Your task to perform on an android device: turn off notifications in google photos Image 0: 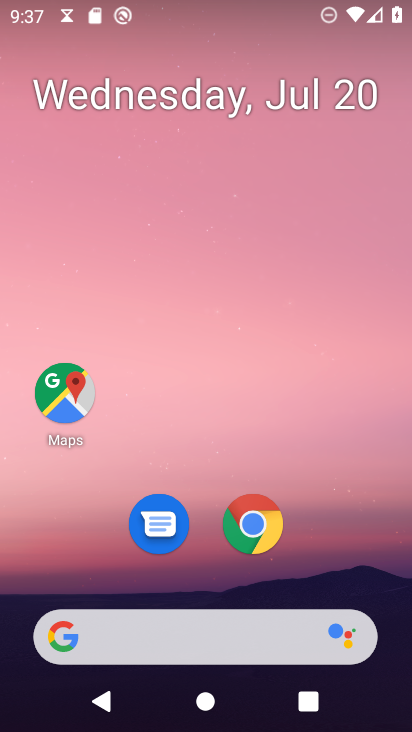
Step 0: press home button
Your task to perform on an android device: turn off notifications in google photos Image 1: 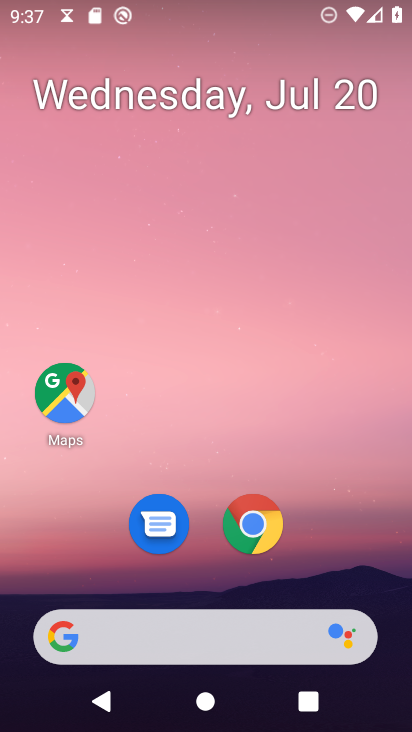
Step 1: drag from (180, 638) to (278, 163)
Your task to perform on an android device: turn off notifications in google photos Image 2: 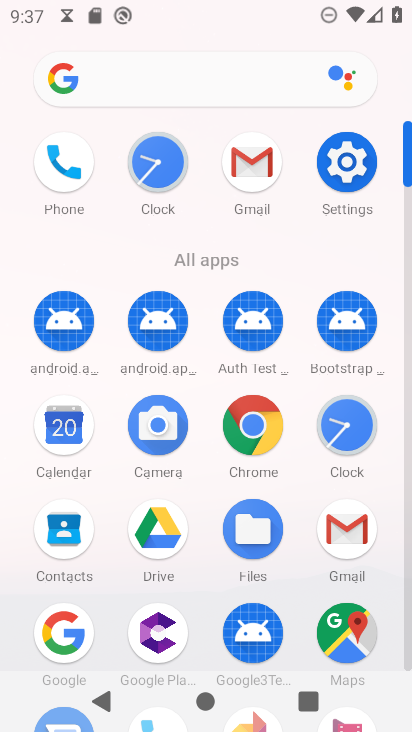
Step 2: drag from (198, 612) to (351, 109)
Your task to perform on an android device: turn off notifications in google photos Image 3: 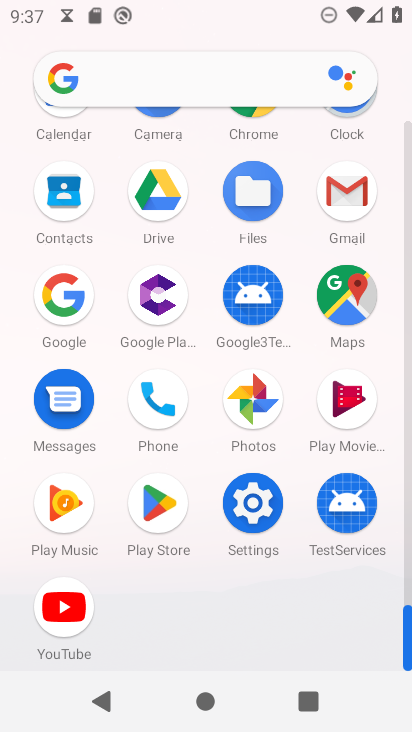
Step 3: click (260, 409)
Your task to perform on an android device: turn off notifications in google photos Image 4: 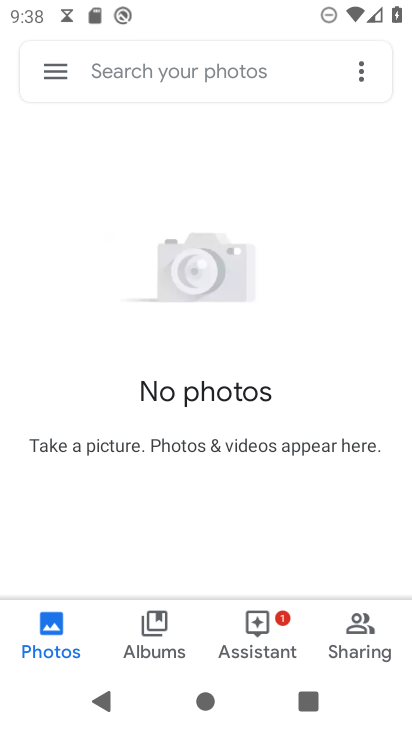
Step 4: click (64, 67)
Your task to perform on an android device: turn off notifications in google photos Image 5: 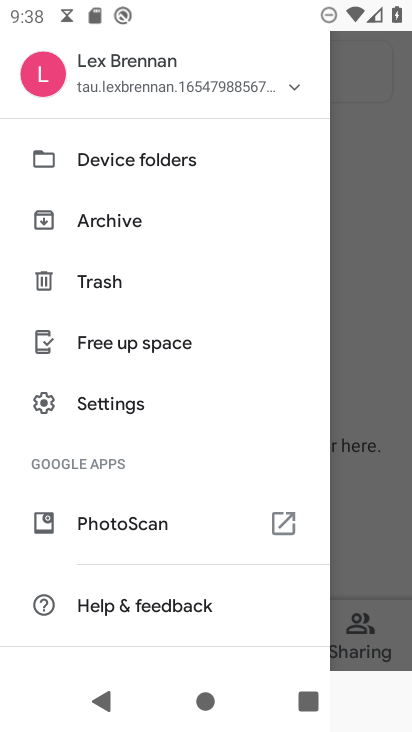
Step 5: click (111, 393)
Your task to perform on an android device: turn off notifications in google photos Image 6: 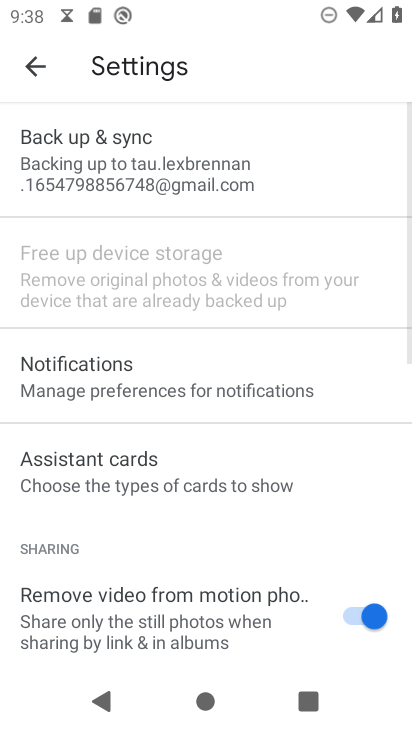
Step 6: click (118, 385)
Your task to perform on an android device: turn off notifications in google photos Image 7: 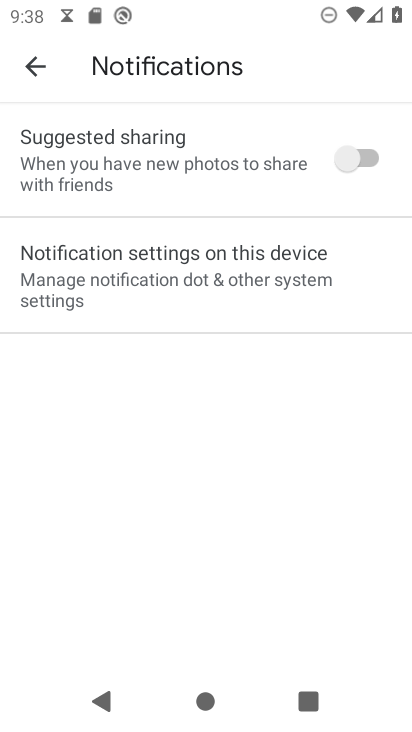
Step 7: click (237, 287)
Your task to perform on an android device: turn off notifications in google photos Image 8: 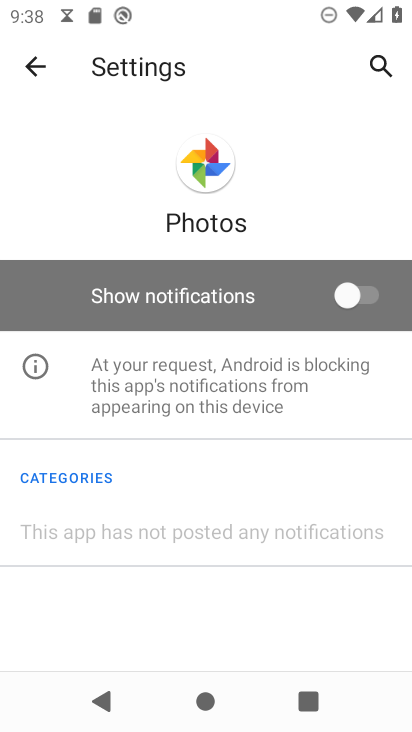
Step 8: task complete